Your task to perform on an android device: Go to settings Image 0: 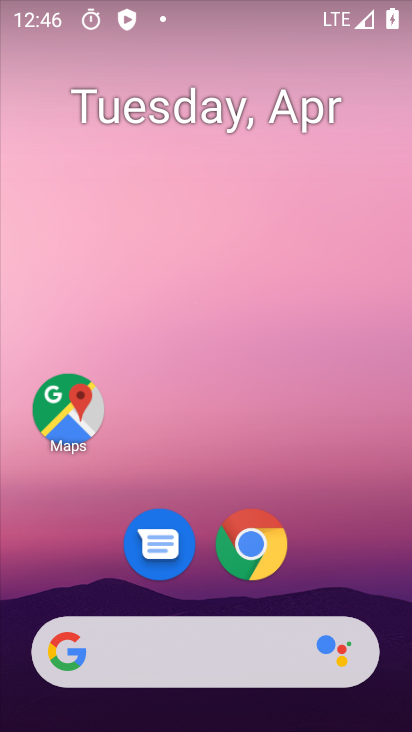
Step 0: drag from (390, 558) to (386, 76)
Your task to perform on an android device: Go to settings Image 1: 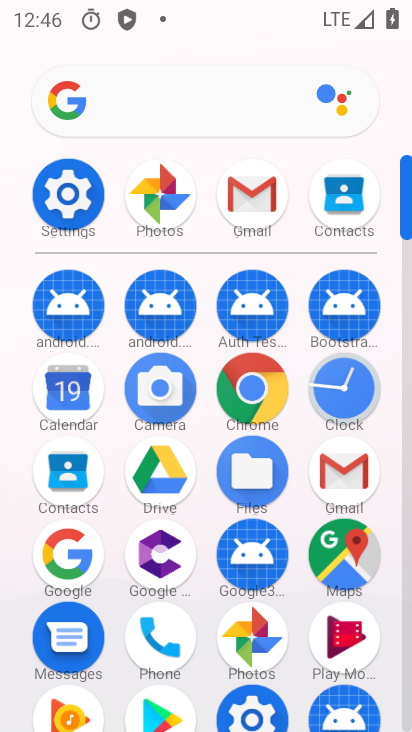
Step 1: click (60, 199)
Your task to perform on an android device: Go to settings Image 2: 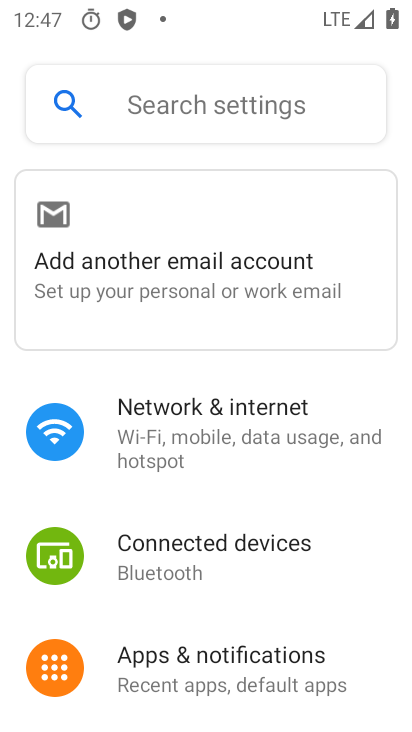
Step 2: task complete